Your task to perform on an android device: toggle translation in the chrome app Image 0: 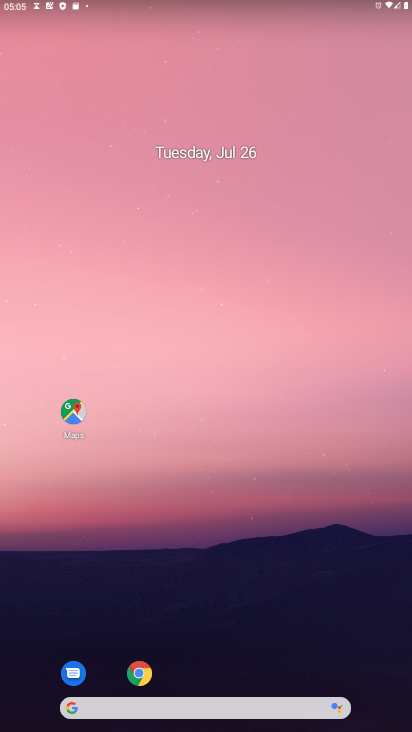
Step 0: click (139, 672)
Your task to perform on an android device: toggle translation in the chrome app Image 1: 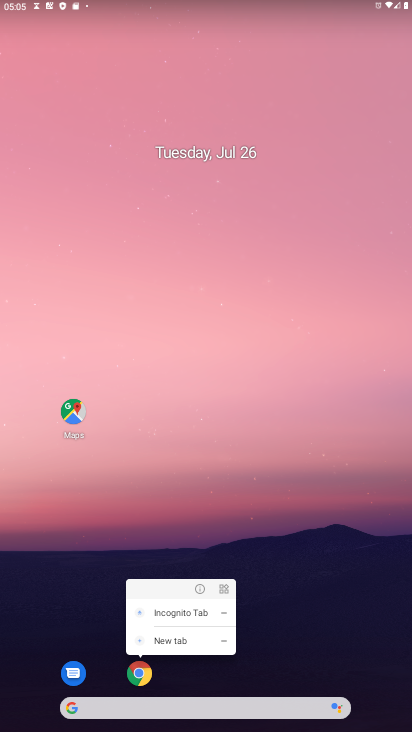
Step 1: click (139, 675)
Your task to perform on an android device: toggle translation in the chrome app Image 2: 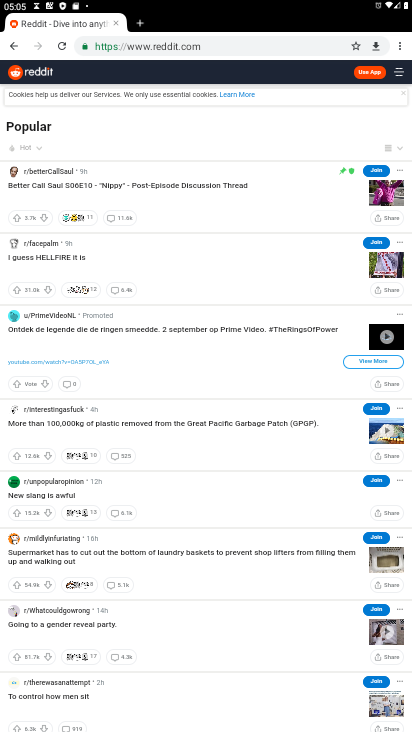
Step 2: click (400, 47)
Your task to perform on an android device: toggle translation in the chrome app Image 3: 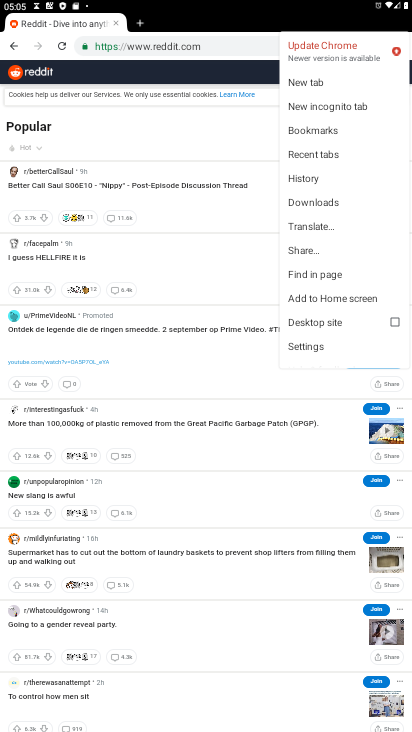
Step 3: click (306, 343)
Your task to perform on an android device: toggle translation in the chrome app Image 4: 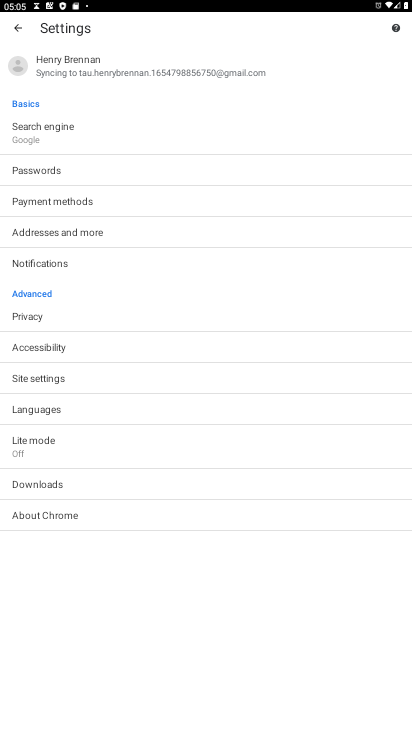
Step 4: click (44, 411)
Your task to perform on an android device: toggle translation in the chrome app Image 5: 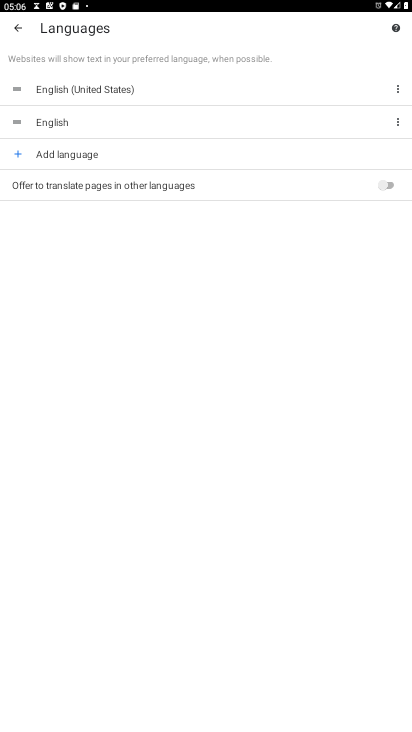
Step 5: click (389, 180)
Your task to perform on an android device: toggle translation in the chrome app Image 6: 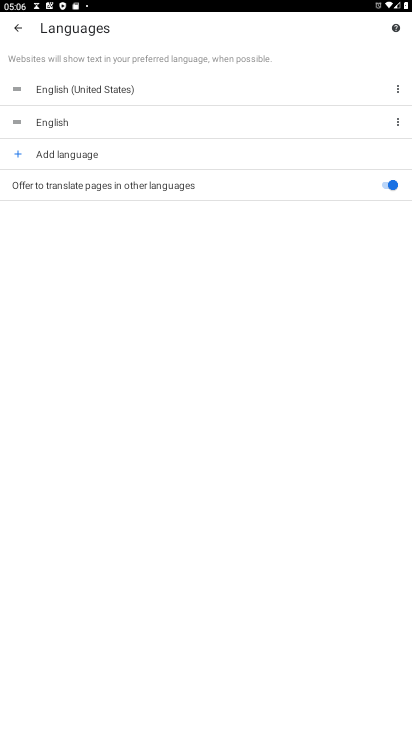
Step 6: task complete